Your task to perform on an android device: Open the calendar and show me this week's events? Image 0: 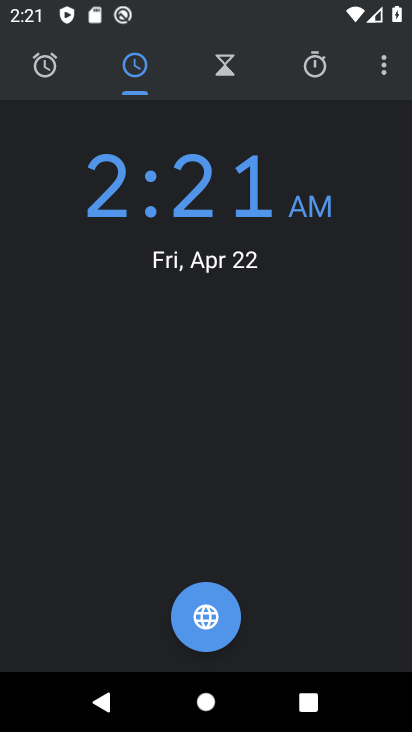
Step 0: press home button
Your task to perform on an android device: Open the calendar and show me this week's events? Image 1: 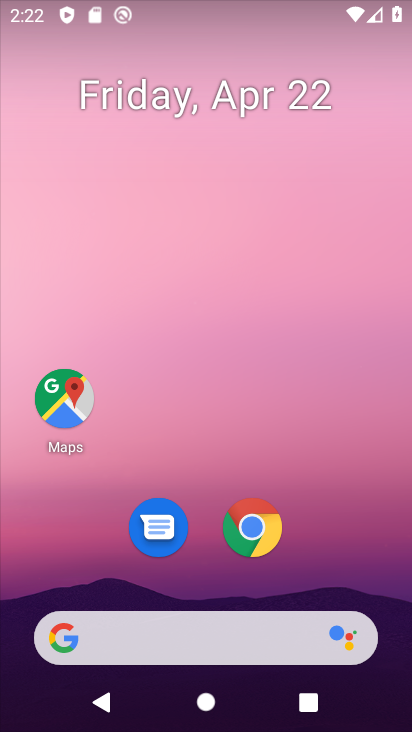
Step 1: drag from (382, 599) to (248, 93)
Your task to perform on an android device: Open the calendar and show me this week's events? Image 2: 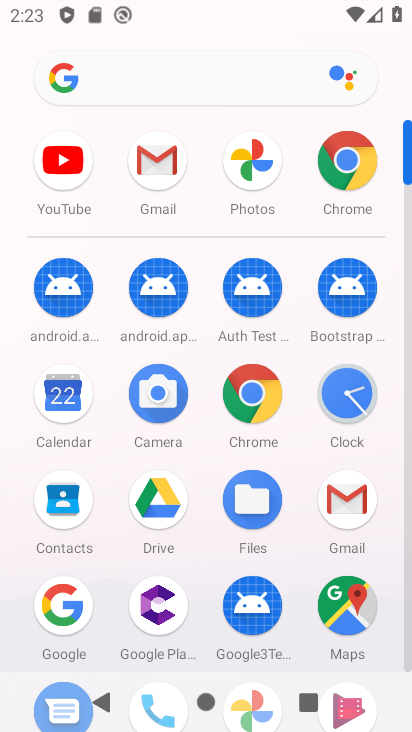
Step 2: click (72, 395)
Your task to perform on an android device: Open the calendar and show me this week's events? Image 3: 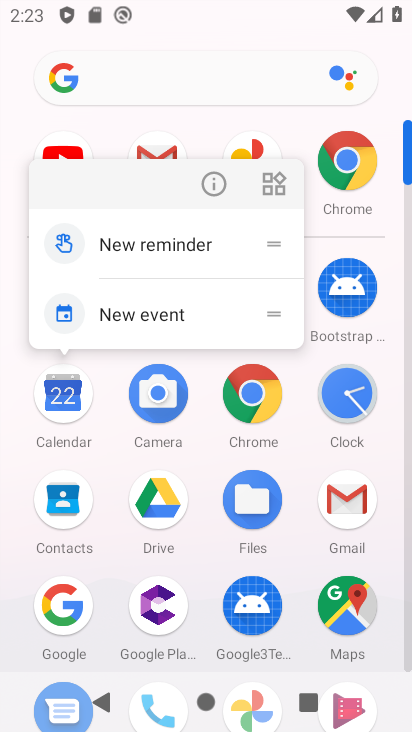
Step 3: click (74, 394)
Your task to perform on an android device: Open the calendar and show me this week's events? Image 4: 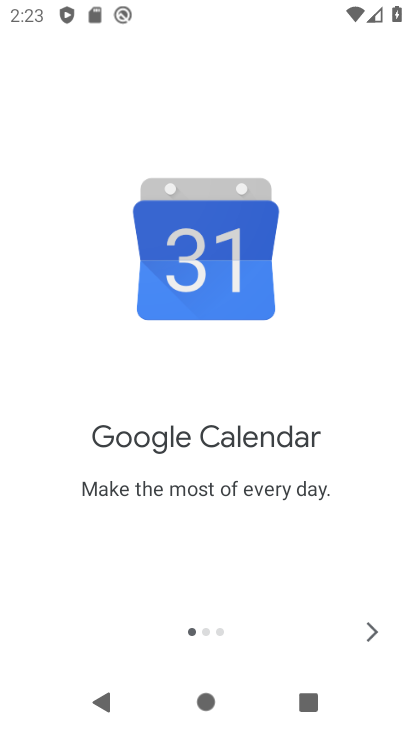
Step 4: click (368, 623)
Your task to perform on an android device: Open the calendar and show me this week's events? Image 5: 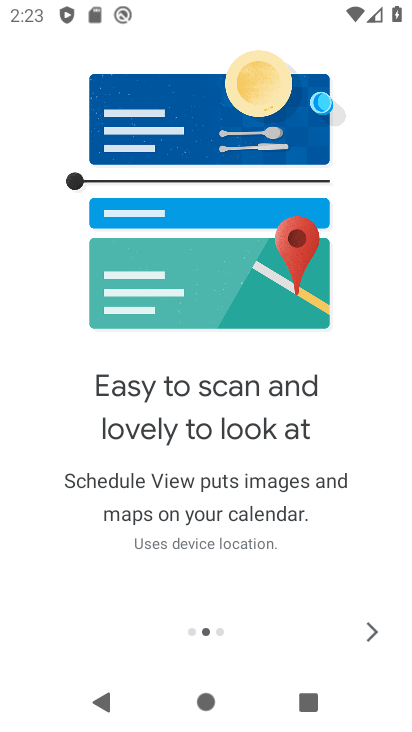
Step 5: click (370, 623)
Your task to perform on an android device: Open the calendar and show me this week's events? Image 6: 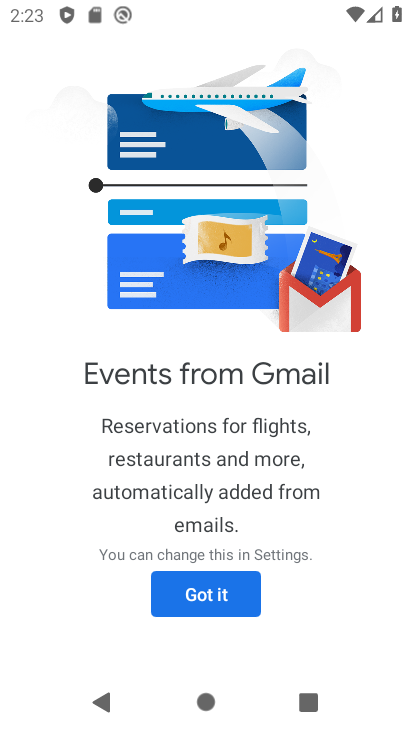
Step 6: click (370, 623)
Your task to perform on an android device: Open the calendar and show me this week's events? Image 7: 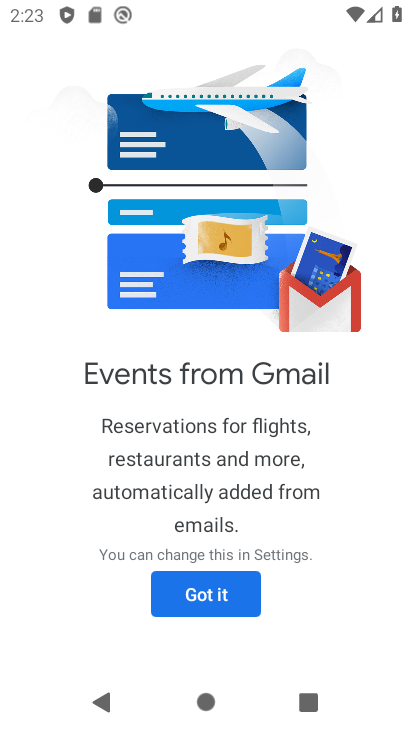
Step 7: click (235, 592)
Your task to perform on an android device: Open the calendar and show me this week's events? Image 8: 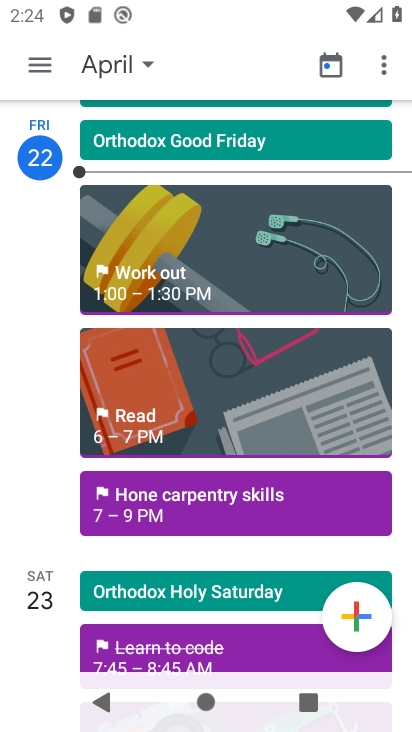
Step 8: task complete